Your task to perform on an android device: allow notifications from all sites in the chrome app Image 0: 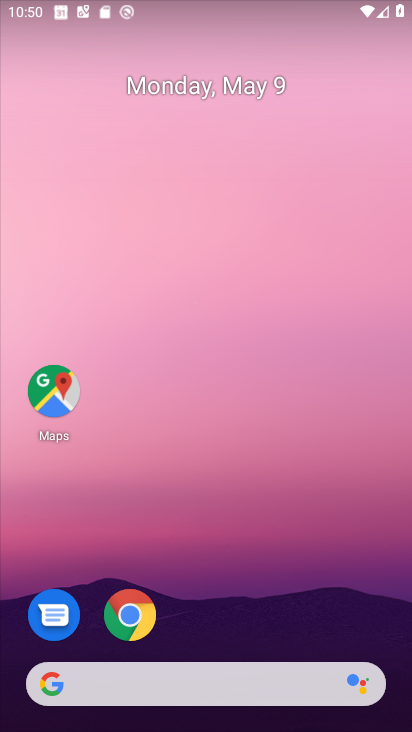
Step 0: drag from (270, 709) to (340, 1)
Your task to perform on an android device: allow notifications from all sites in the chrome app Image 1: 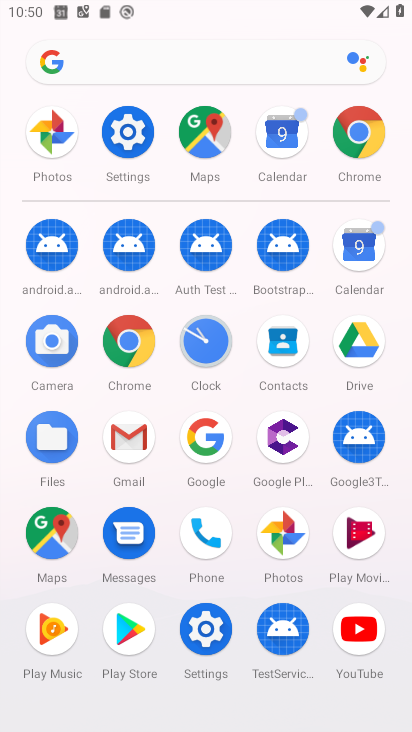
Step 1: click (137, 334)
Your task to perform on an android device: allow notifications from all sites in the chrome app Image 2: 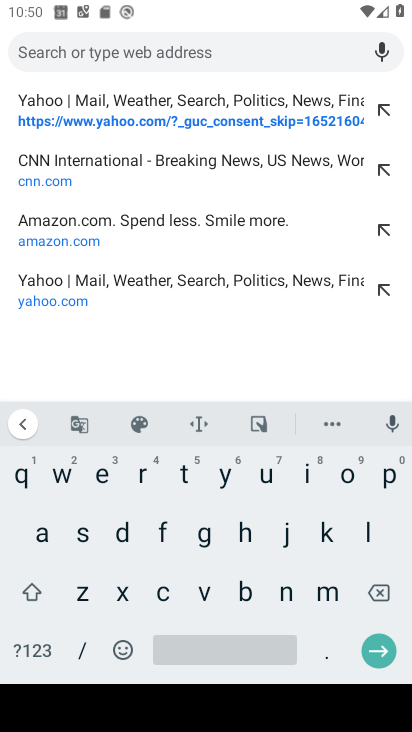
Step 2: press back button
Your task to perform on an android device: allow notifications from all sites in the chrome app Image 3: 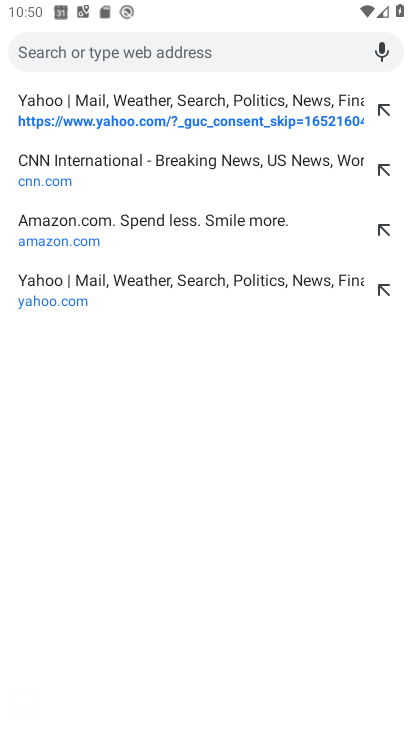
Step 3: press back button
Your task to perform on an android device: allow notifications from all sites in the chrome app Image 4: 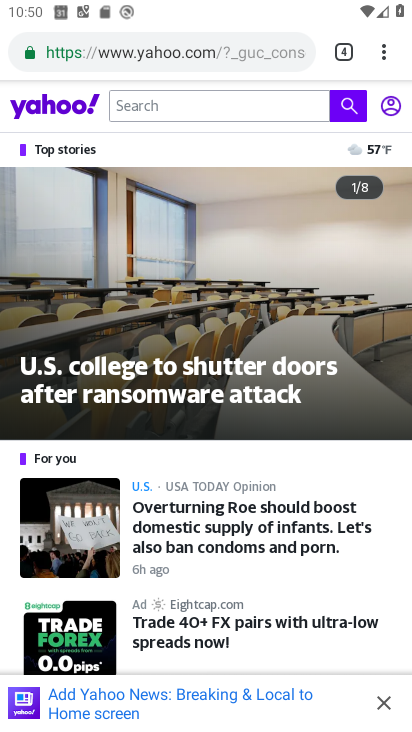
Step 4: click (376, 59)
Your task to perform on an android device: allow notifications from all sites in the chrome app Image 5: 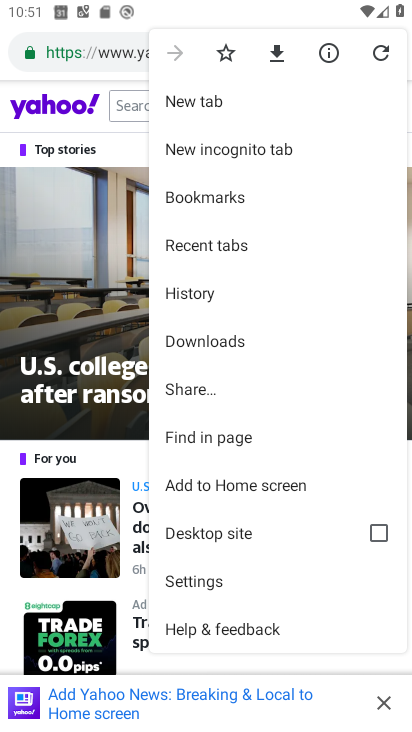
Step 5: click (202, 582)
Your task to perform on an android device: allow notifications from all sites in the chrome app Image 6: 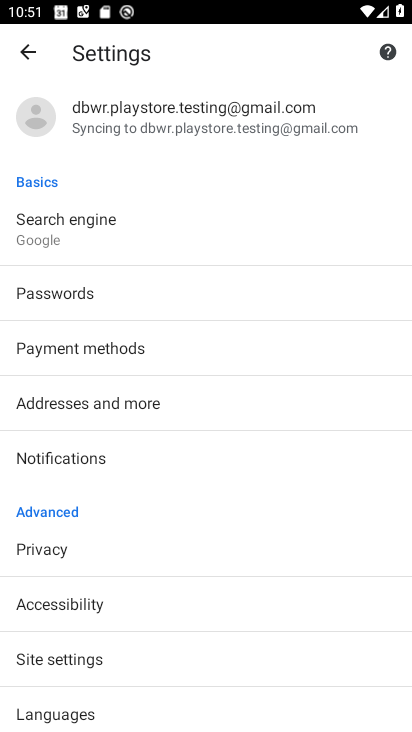
Step 6: click (100, 658)
Your task to perform on an android device: allow notifications from all sites in the chrome app Image 7: 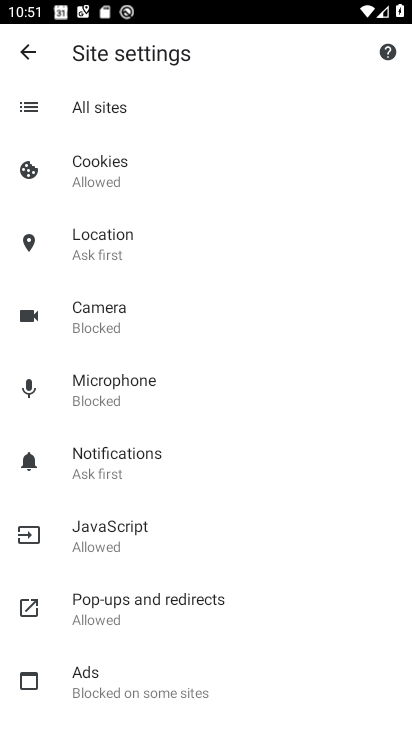
Step 7: click (135, 474)
Your task to perform on an android device: allow notifications from all sites in the chrome app Image 8: 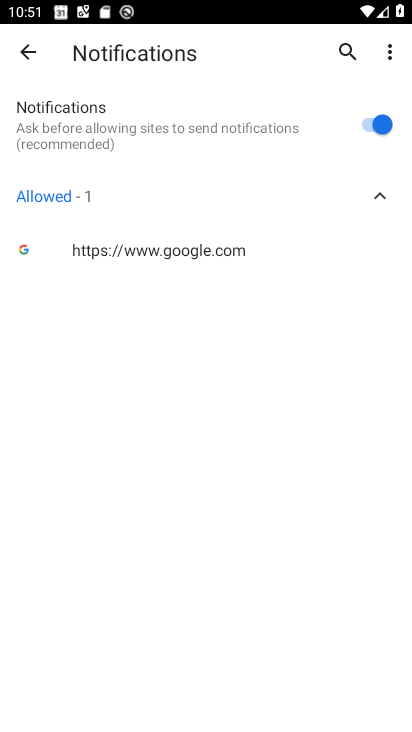
Step 8: click (331, 134)
Your task to perform on an android device: allow notifications from all sites in the chrome app Image 9: 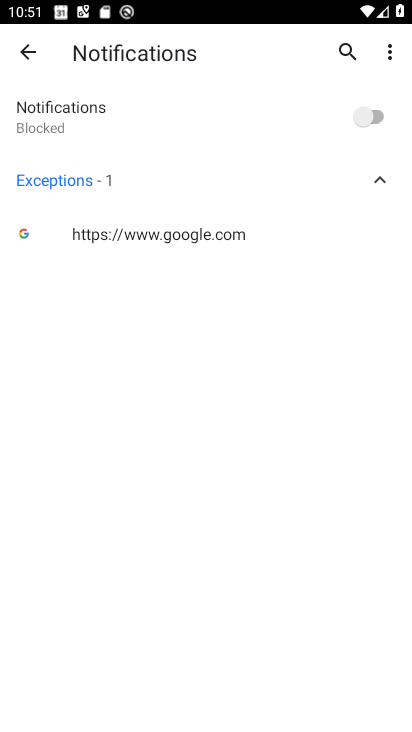
Step 9: click (334, 130)
Your task to perform on an android device: allow notifications from all sites in the chrome app Image 10: 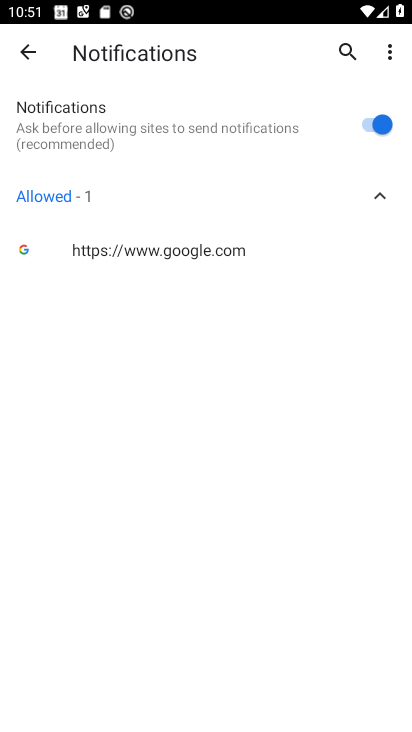
Step 10: task complete